Your task to perform on an android device: turn pop-ups off in chrome Image 0: 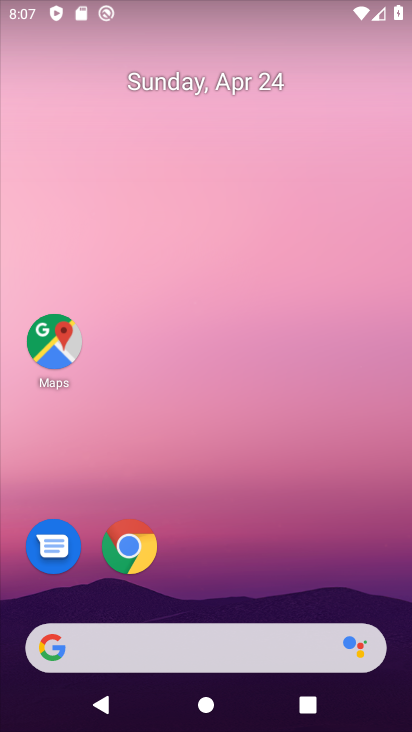
Step 0: click (131, 535)
Your task to perform on an android device: turn pop-ups off in chrome Image 1: 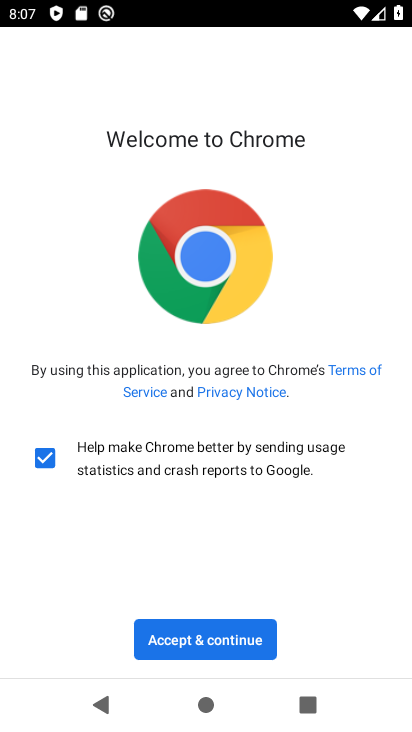
Step 1: click (189, 643)
Your task to perform on an android device: turn pop-ups off in chrome Image 2: 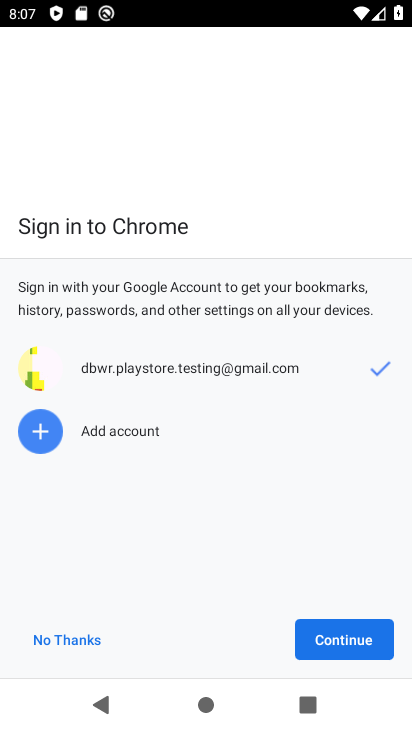
Step 2: click (364, 637)
Your task to perform on an android device: turn pop-ups off in chrome Image 3: 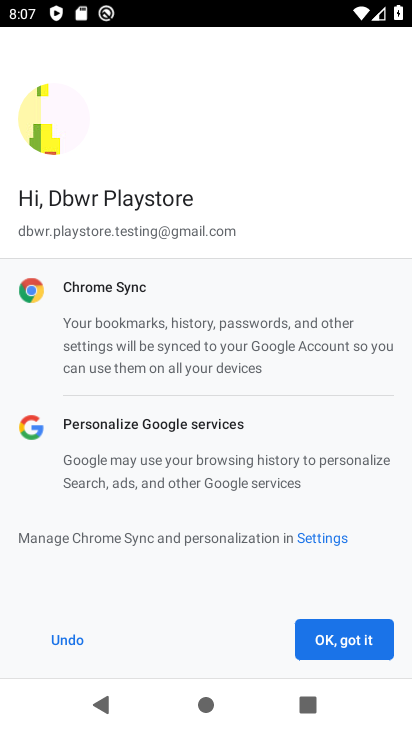
Step 3: click (364, 637)
Your task to perform on an android device: turn pop-ups off in chrome Image 4: 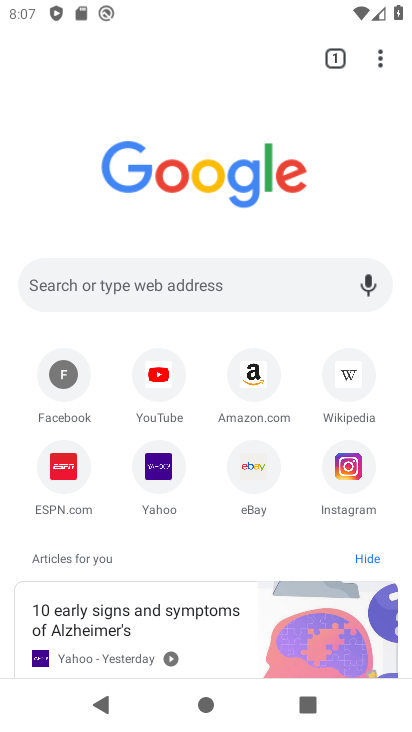
Step 4: click (375, 65)
Your task to perform on an android device: turn pop-ups off in chrome Image 5: 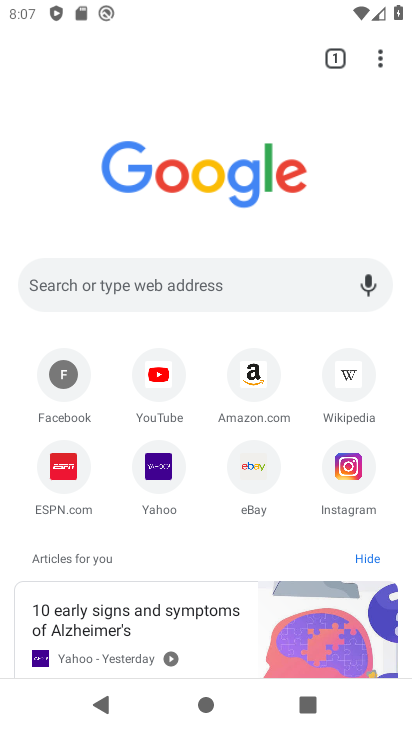
Step 5: click (377, 75)
Your task to perform on an android device: turn pop-ups off in chrome Image 6: 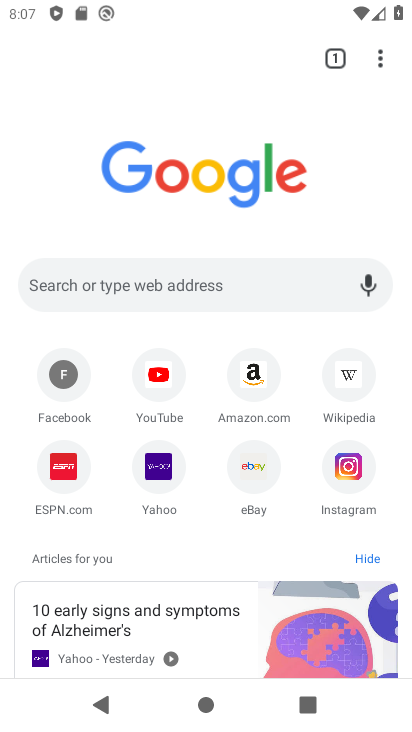
Step 6: click (401, 47)
Your task to perform on an android device: turn pop-ups off in chrome Image 7: 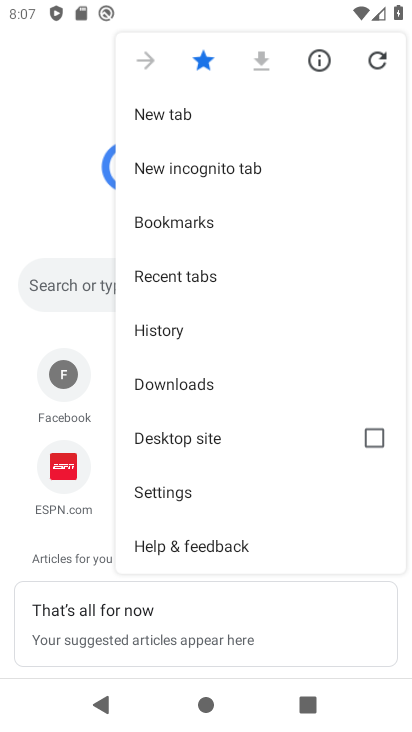
Step 7: click (228, 501)
Your task to perform on an android device: turn pop-ups off in chrome Image 8: 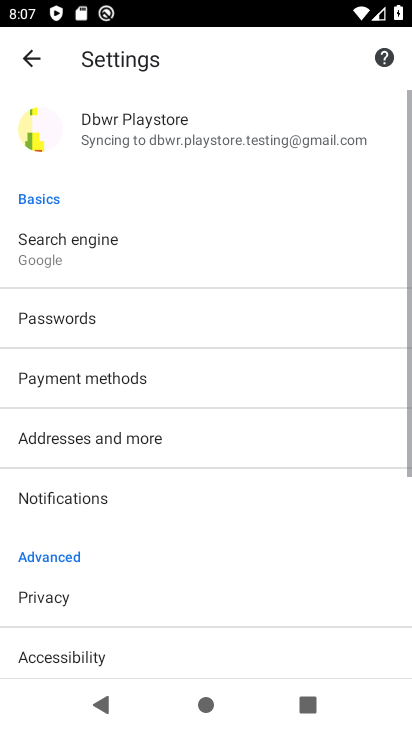
Step 8: drag from (182, 611) to (268, 180)
Your task to perform on an android device: turn pop-ups off in chrome Image 9: 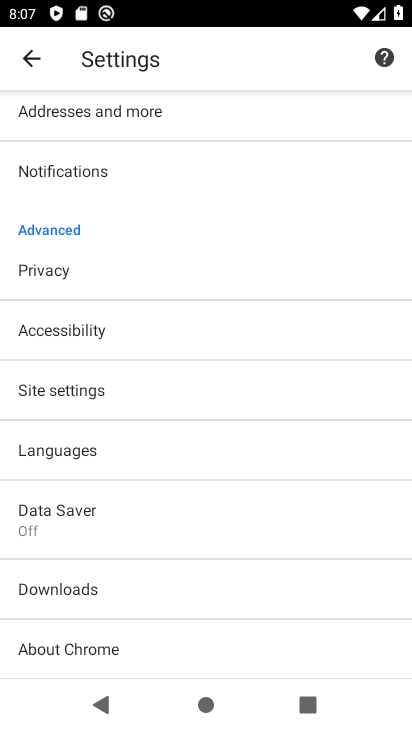
Step 9: click (163, 385)
Your task to perform on an android device: turn pop-ups off in chrome Image 10: 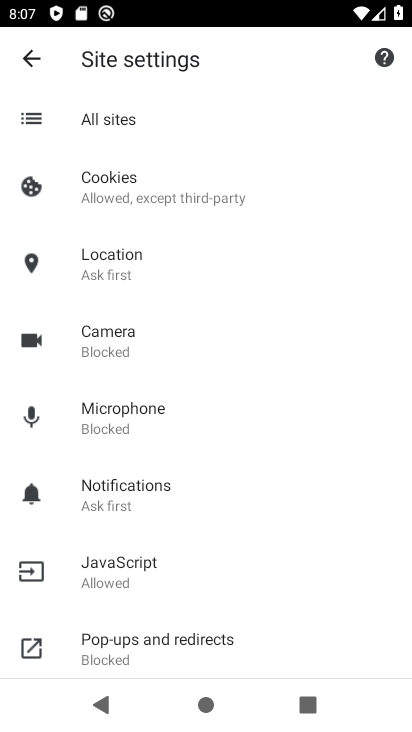
Step 10: drag from (214, 594) to (226, 215)
Your task to perform on an android device: turn pop-ups off in chrome Image 11: 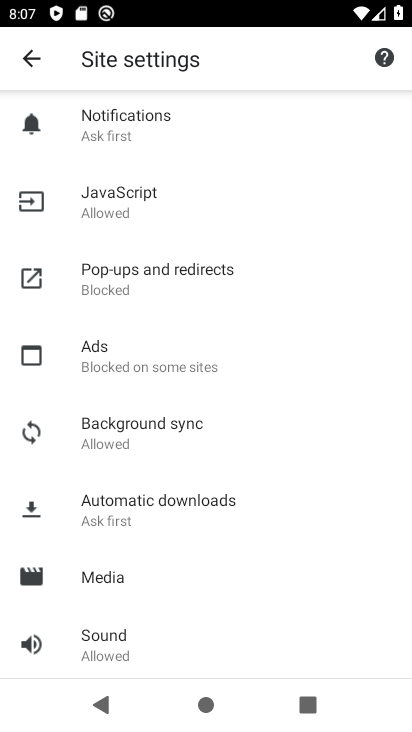
Step 11: click (223, 285)
Your task to perform on an android device: turn pop-ups off in chrome Image 12: 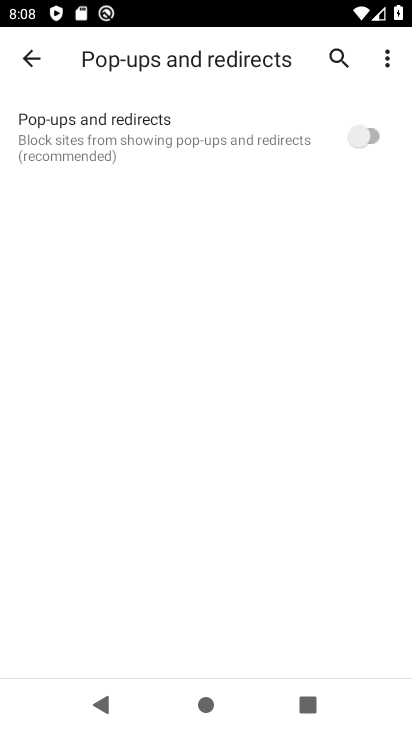
Step 12: task complete